Your task to perform on an android device: Open calendar and show me the third week of next month Image 0: 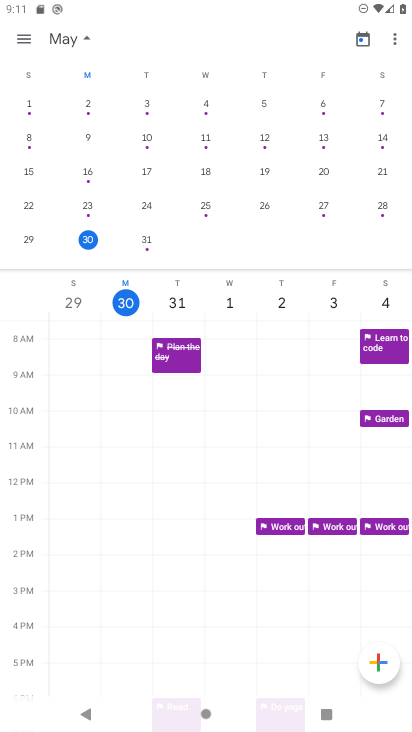
Step 0: drag from (332, 197) to (119, 212)
Your task to perform on an android device: Open calendar and show me the third week of next month Image 1: 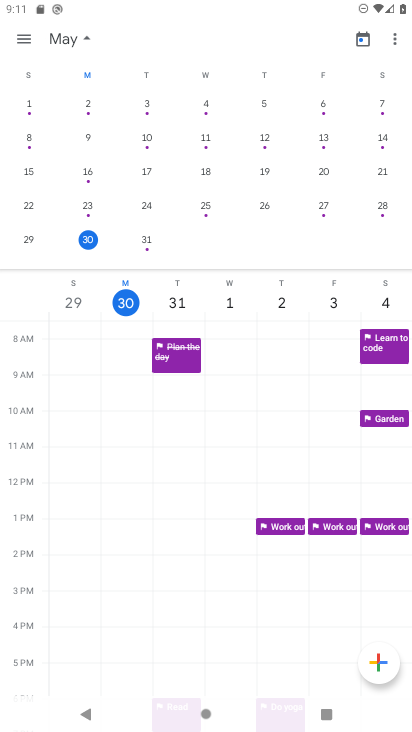
Step 1: drag from (24, 164) to (352, 174)
Your task to perform on an android device: Open calendar and show me the third week of next month Image 2: 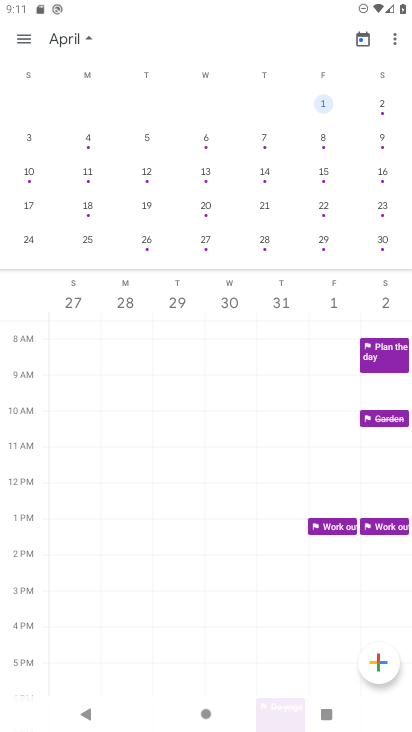
Step 2: drag from (310, 182) to (9, 177)
Your task to perform on an android device: Open calendar and show me the third week of next month Image 3: 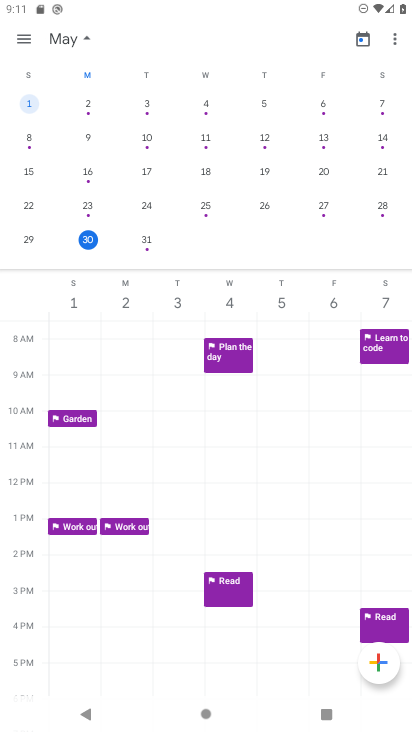
Step 3: drag from (349, 157) to (10, 172)
Your task to perform on an android device: Open calendar and show me the third week of next month Image 4: 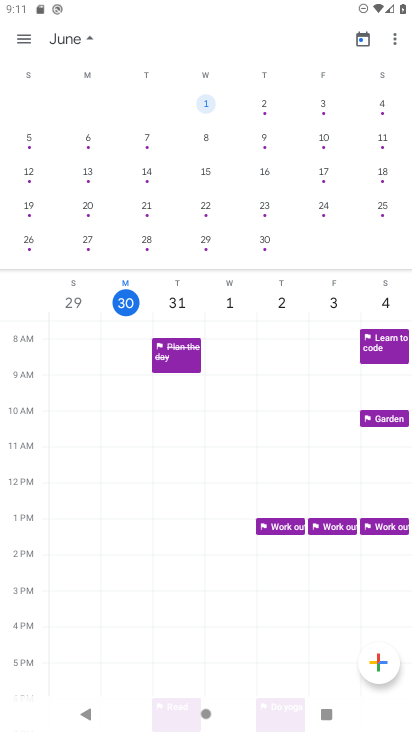
Step 4: click (86, 208)
Your task to perform on an android device: Open calendar and show me the third week of next month Image 5: 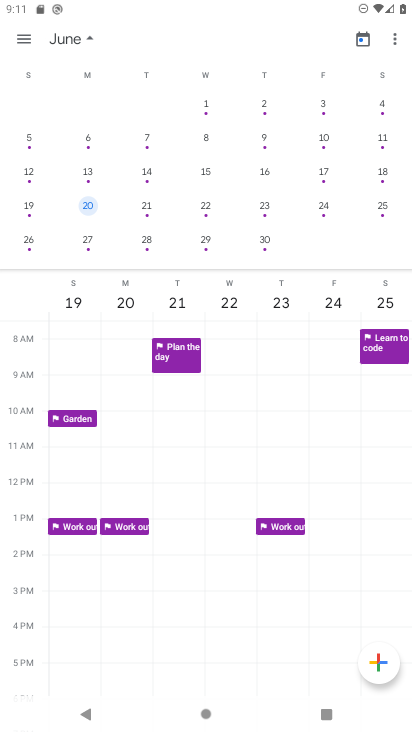
Step 5: task complete